Your task to perform on an android device: Go to accessibility settings Image 0: 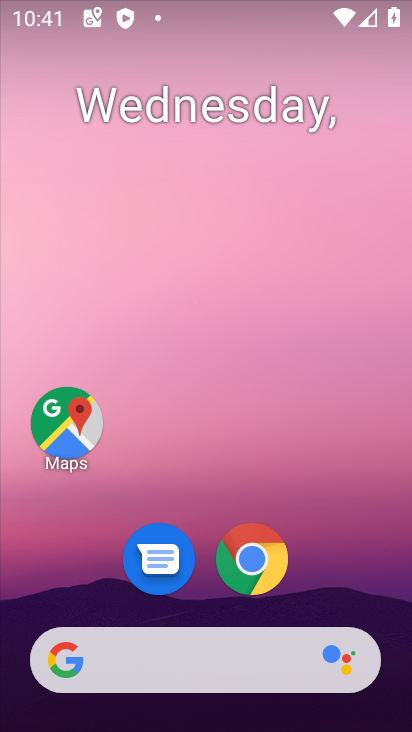
Step 0: drag from (332, 576) to (273, 101)
Your task to perform on an android device: Go to accessibility settings Image 1: 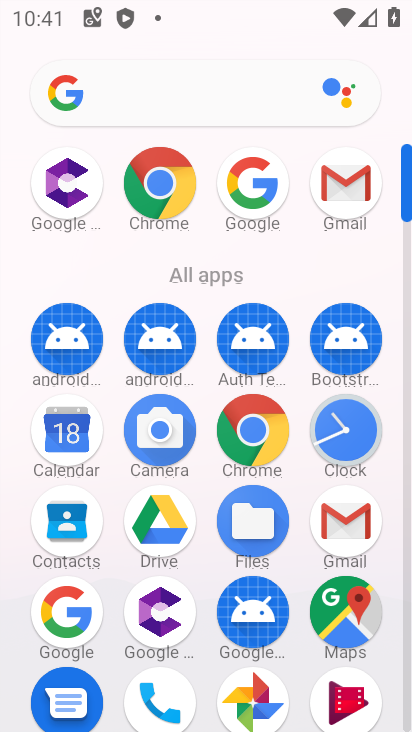
Step 1: drag from (217, 578) to (223, 382)
Your task to perform on an android device: Go to accessibility settings Image 2: 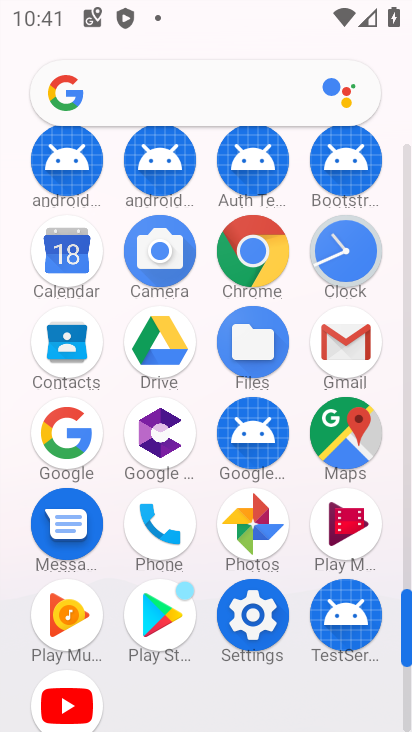
Step 2: click (253, 616)
Your task to perform on an android device: Go to accessibility settings Image 3: 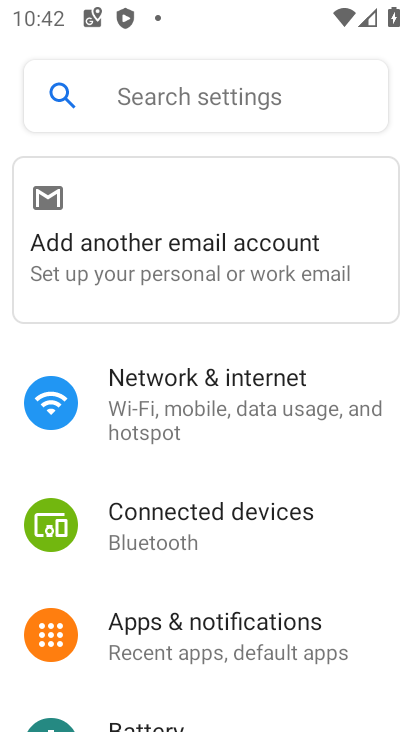
Step 3: drag from (170, 478) to (229, 380)
Your task to perform on an android device: Go to accessibility settings Image 4: 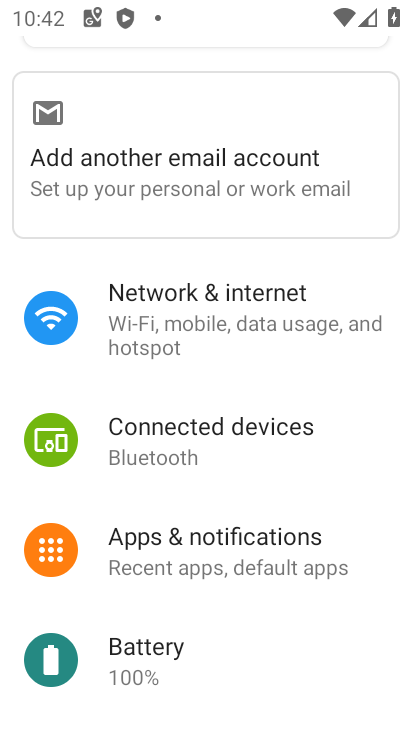
Step 4: drag from (183, 503) to (237, 397)
Your task to perform on an android device: Go to accessibility settings Image 5: 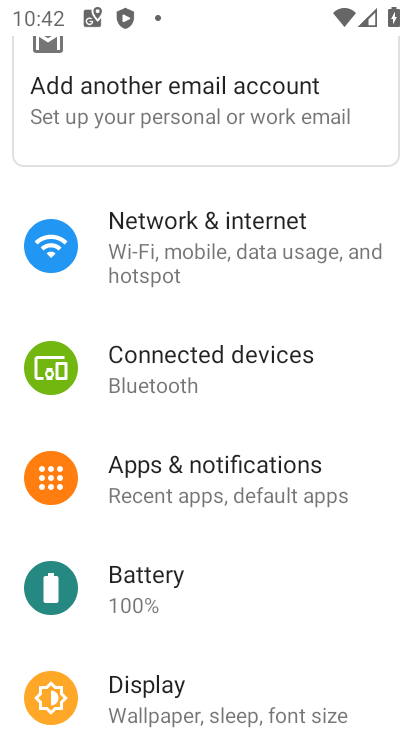
Step 5: drag from (181, 528) to (240, 421)
Your task to perform on an android device: Go to accessibility settings Image 6: 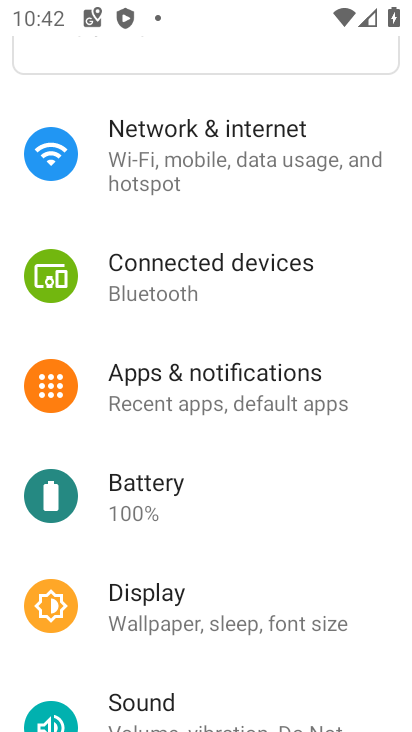
Step 6: drag from (163, 545) to (239, 387)
Your task to perform on an android device: Go to accessibility settings Image 7: 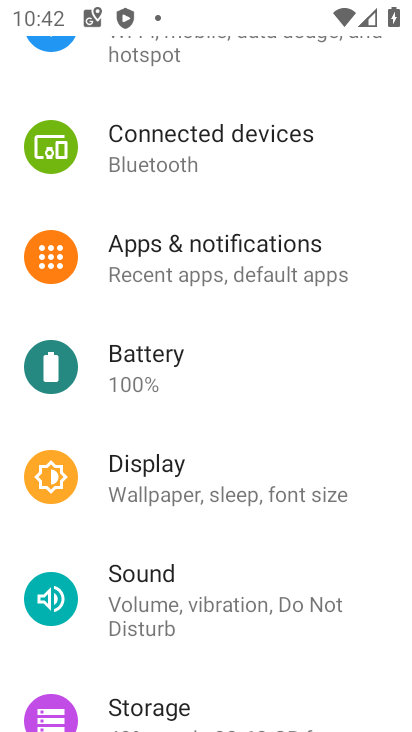
Step 7: drag from (254, 537) to (265, 392)
Your task to perform on an android device: Go to accessibility settings Image 8: 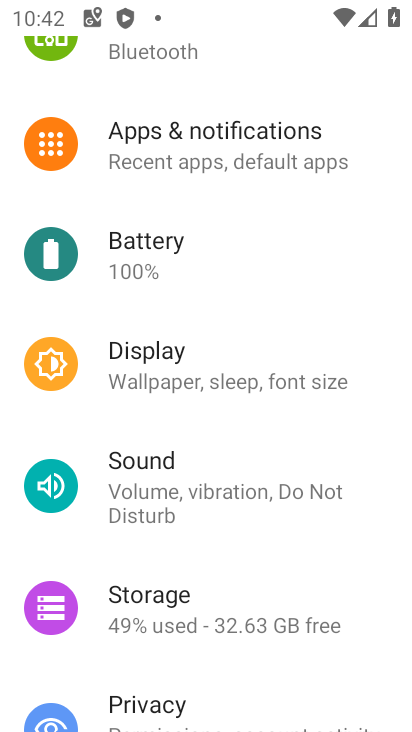
Step 8: drag from (221, 535) to (258, 432)
Your task to perform on an android device: Go to accessibility settings Image 9: 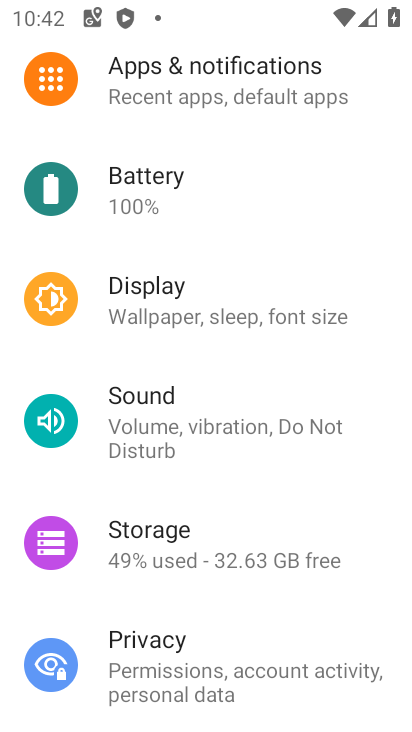
Step 9: drag from (193, 588) to (254, 470)
Your task to perform on an android device: Go to accessibility settings Image 10: 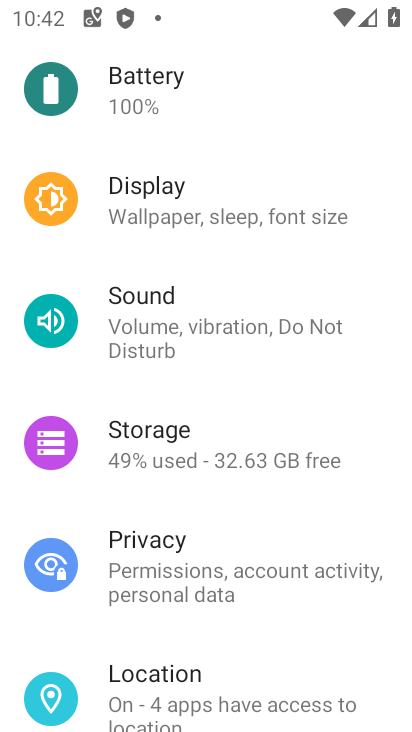
Step 10: drag from (171, 621) to (238, 462)
Your task to perform on an android device: Go to accessibility settings Image 11: 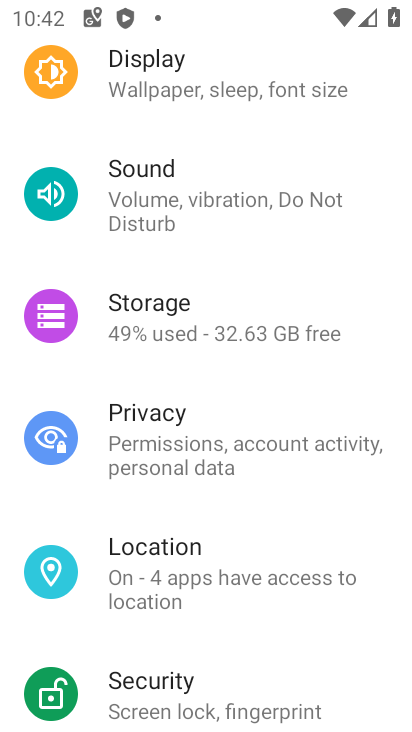
Step 11: drag from (202, 629) to (245, 495)
Your task to perform on an android device: Go to accessibility settings Image 12: 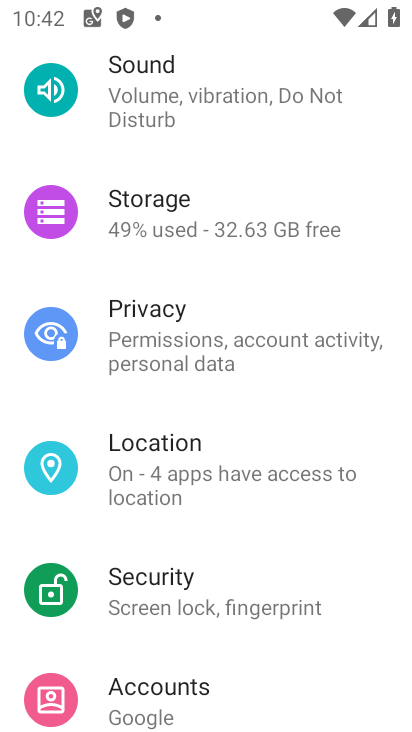
Step 12: drag from (184, 639) to (248, 531)
Your task to perform on an android device: Go to accessibility settings Image 13: 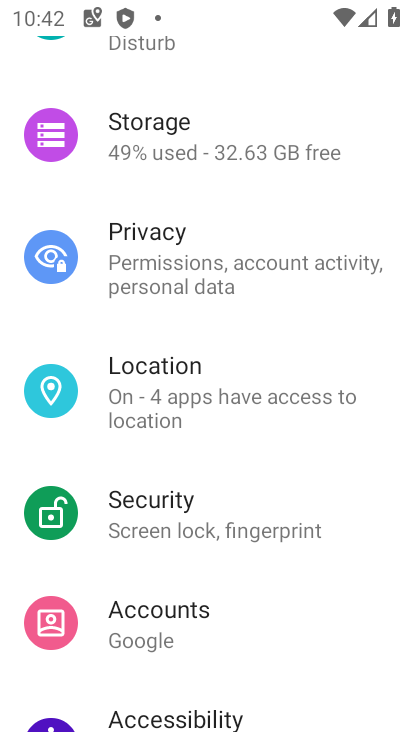
Step 13: drag from (197, 577) to (236, 518)
Your task to perform on an android device: Go to accessibility settings Image 14: 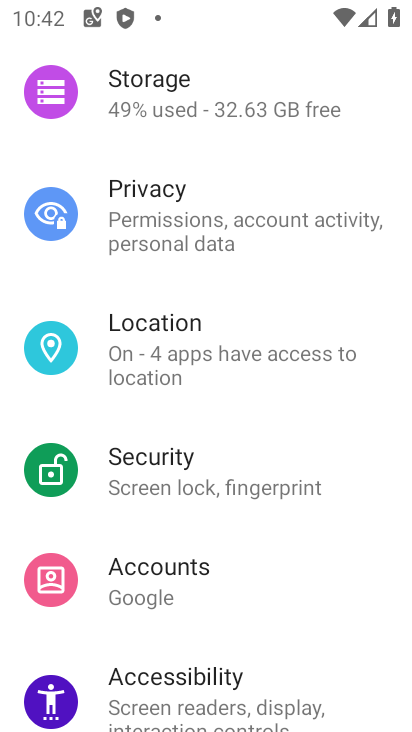
Step 14: drag from (164, 631) to (233, 531)
Your task to perform on an android device: Go to accessibility settings Image 15: 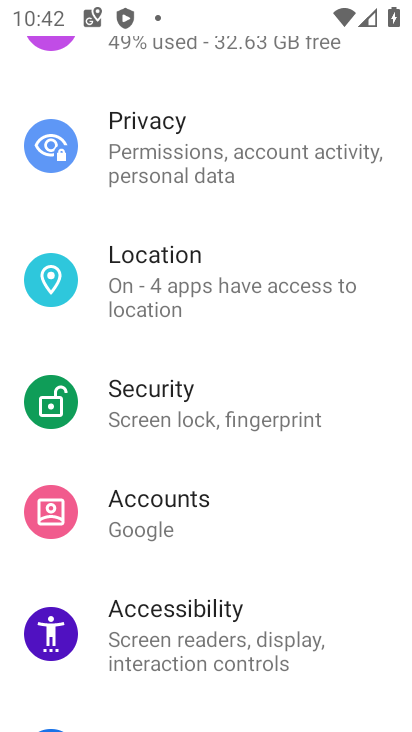
Step 15: click (166, 611)
Your task to perform on an android device: Go to accessibility settings Image 16: 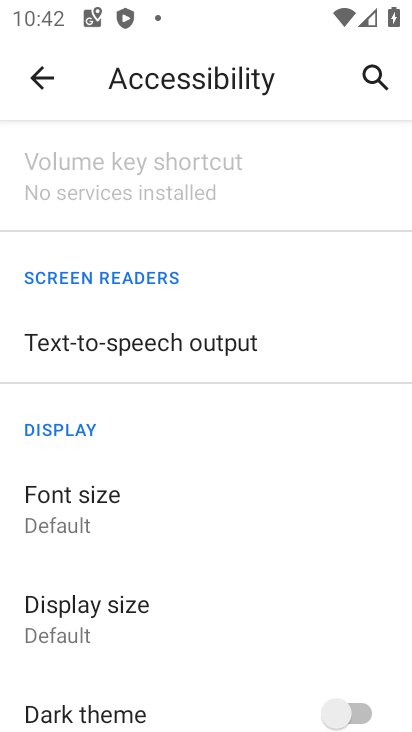
Step 16: task complete